Your task to perform on an android device: move an email to a new category in the gmail app Image 0: 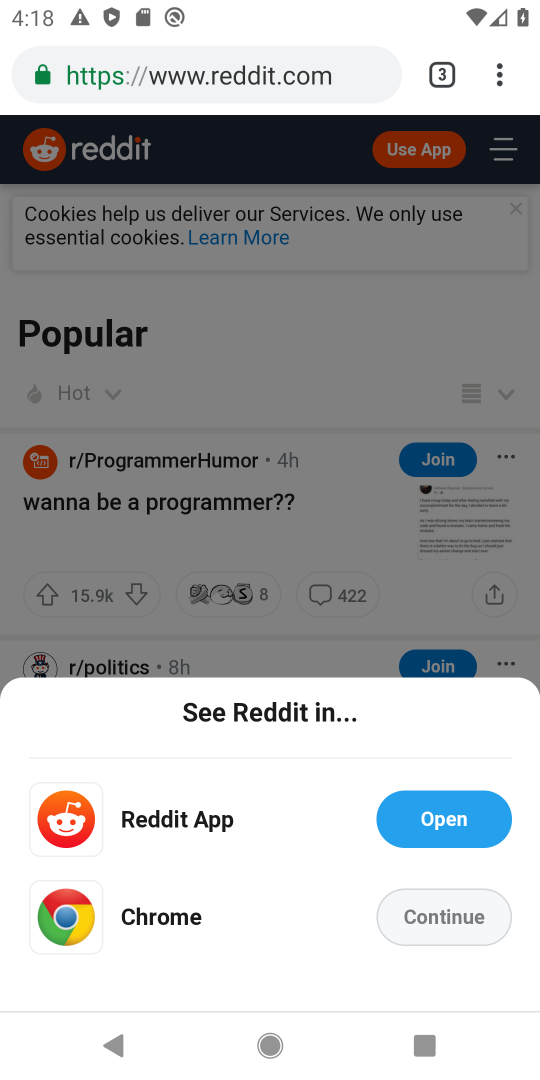
Step 0: press home button
Your task to perform on an android device: move an email to a new category in the gmail app Image 1: 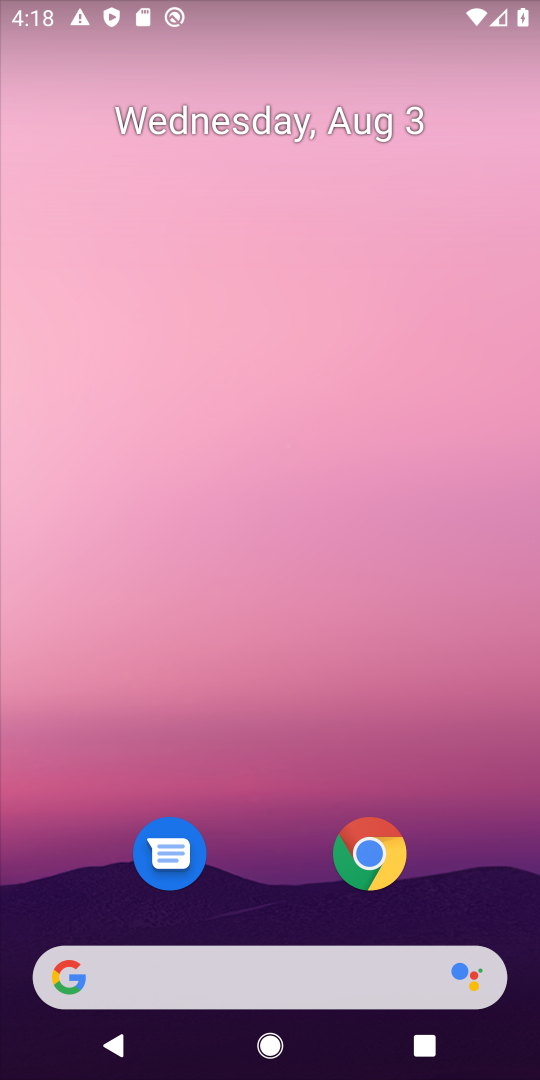
Step 1: drag from (256, 755) to (269, 13)
Your task to perform on an android device: move an email to a new category in the gmail app Image 2: 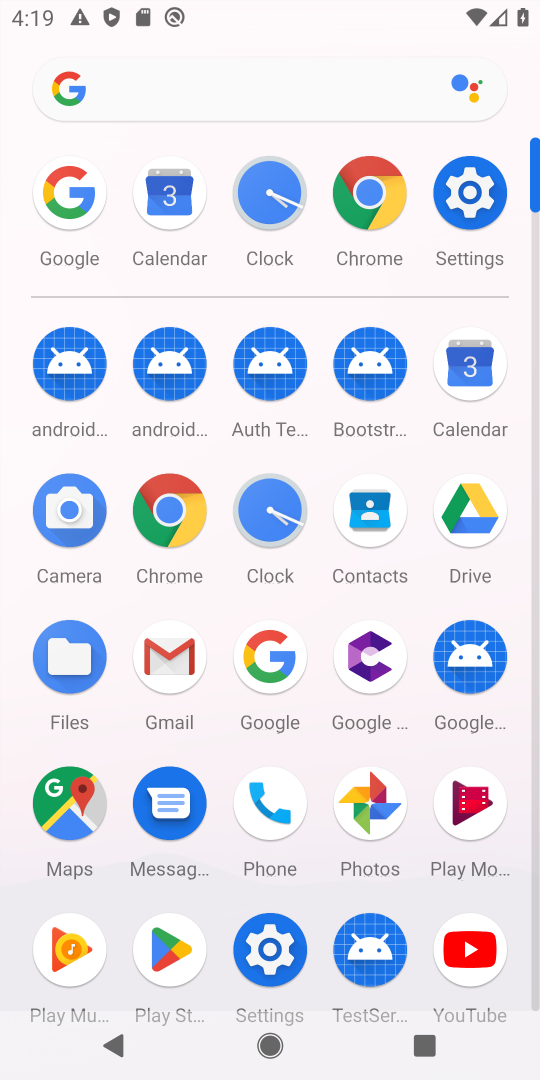
Step 2: click (174, 650)
Your task to perform on an android device: move an email to a new category in the gmail app Image 3: 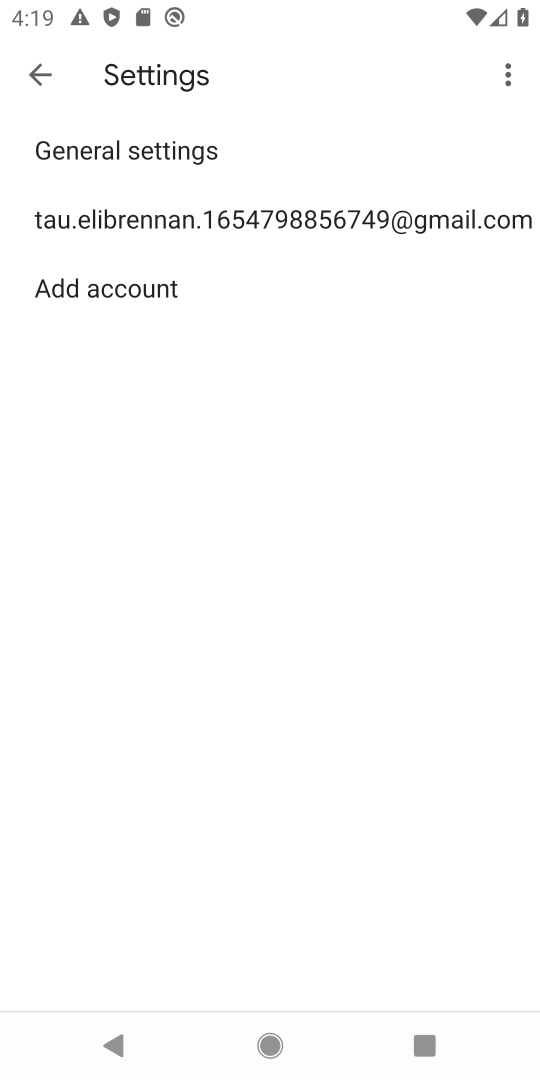
Step 3: click (41, 67)
Your task to perform on an android device: move an email to a new category in the gmail app Image 4: 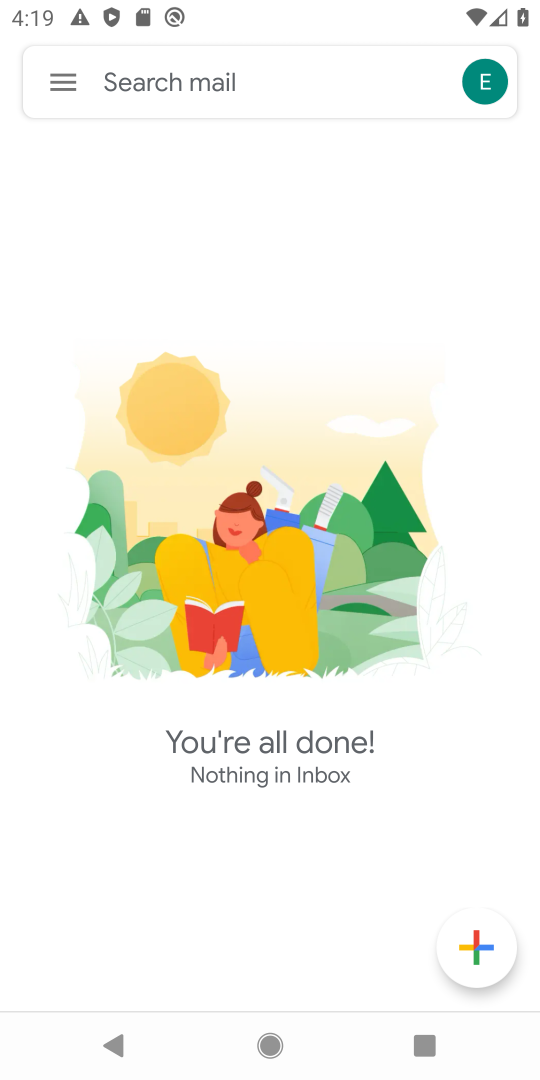
Step 4: task complete